Your task to perform on an android device: Open ESPN.com Image 0: 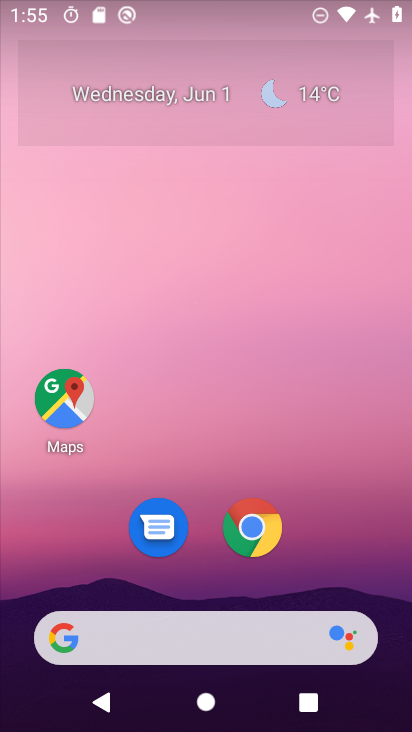
Step 0: drag from (208, 713) to (262, 94)
Your task to perform on an android device: Open ESPN.com Image 1: 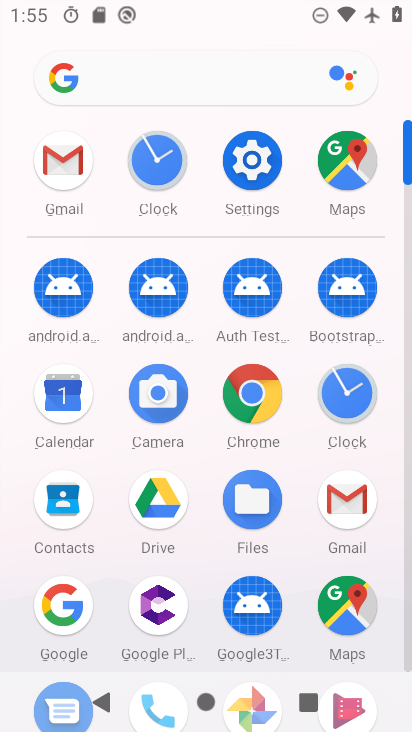
Step 1: drag from (282, 507) to (282, 210)
Your task to perform on an android device: Open ESPN.com Image 2: 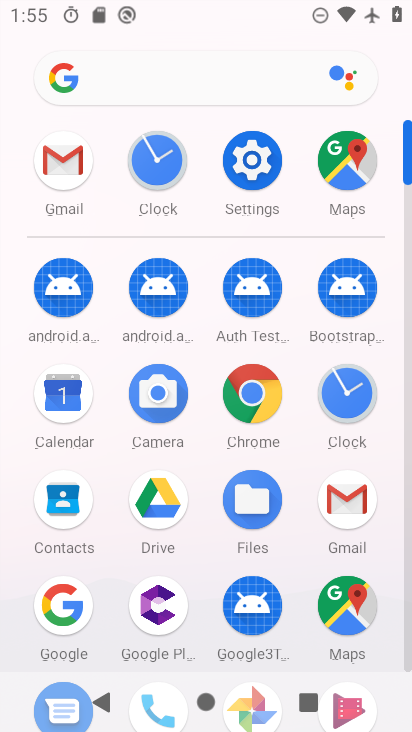
Step 2: click (273, 389)
Your task to perform on an android device: Open ESPN.com Image 3: 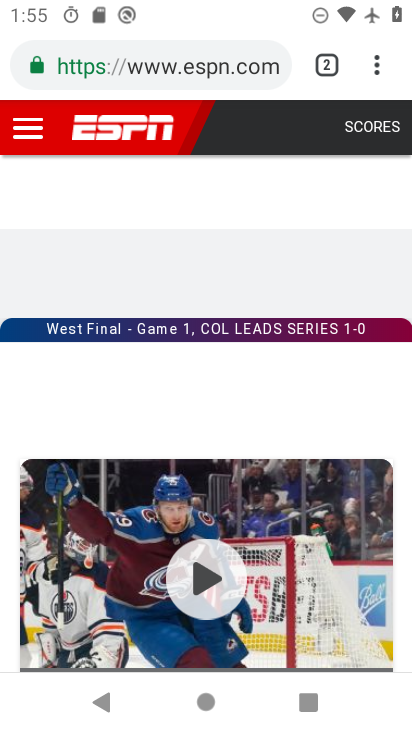
Step 3: task complete